Your task to perform on an android device: What is the recent news? Image 0: 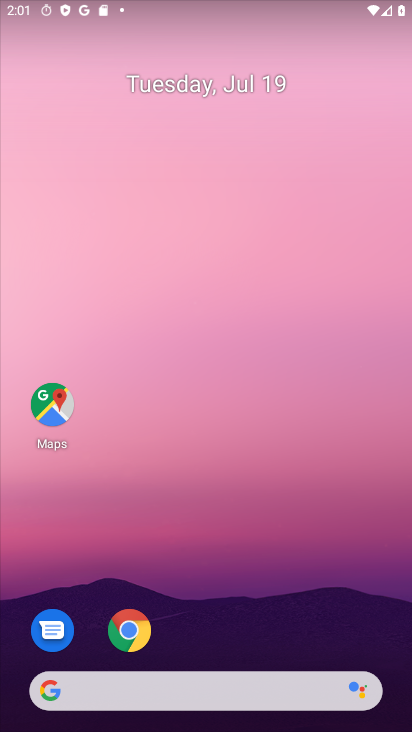
Step 0: click (178, 683)
Your task to perform on an android device: What is the recent news? Image 1: 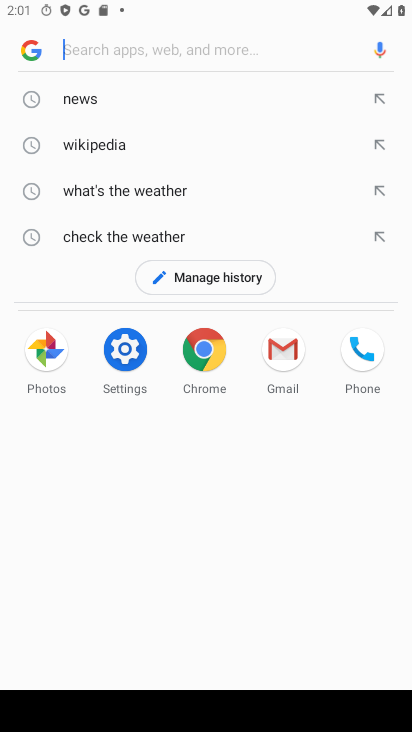
Step 1: type "what is the recent news"
Your task to perform on an android device: What is the recent news? Image 2: 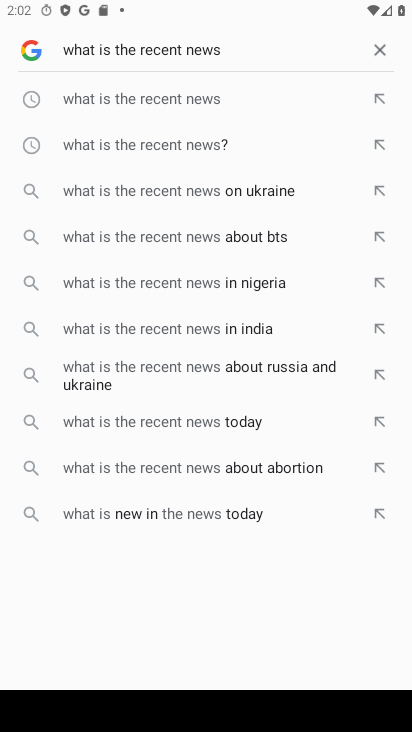
Step 2: click (237, 149)
Your task to perform on an android device: What is the recent news? Image 3: 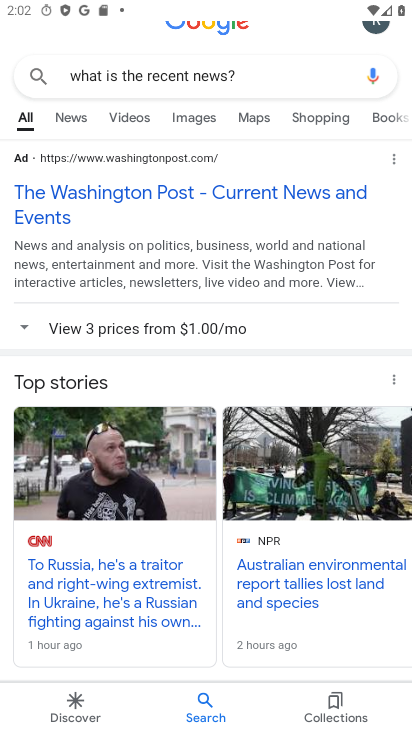
Step 3: click (86, 117)
Your task to perform on an android device: What is the recent news? Image 4: 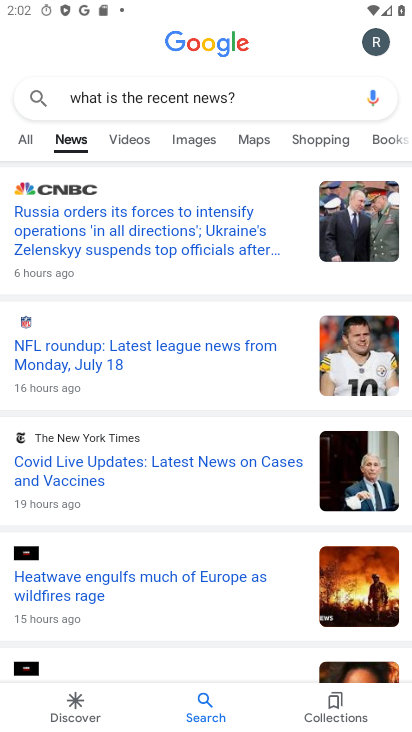
Step 4: task complete